Your task to perform on an android device: turn off location Image 0: 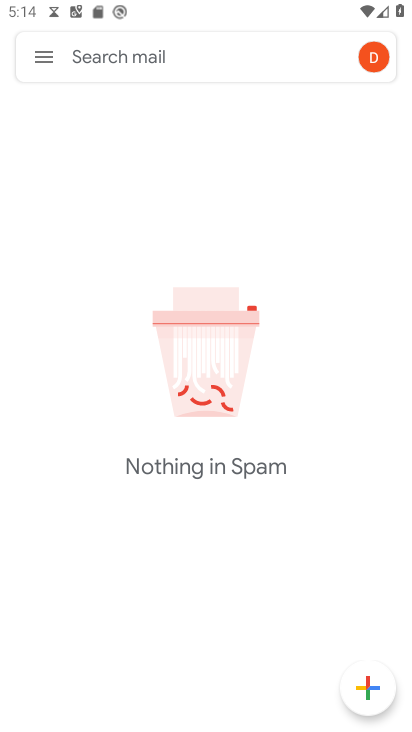
Step 0: press home button
Your task to perform on an android device: turn off location Image 1: 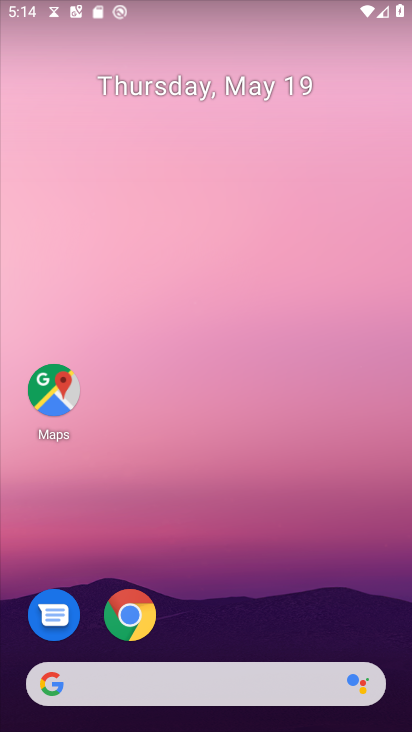
Step 1: drag from (291, 727) to (266, 9)
Your task to perform on an android device: turn off location Image 2: 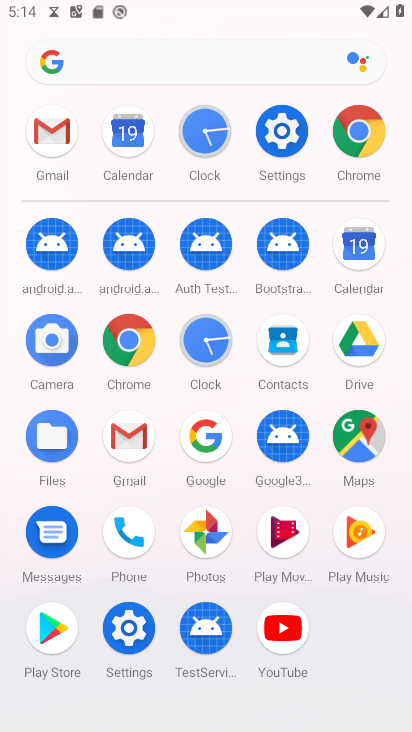
Step 2: click (276, 128)
Your task to perform on an android device: turn off location Image 3: 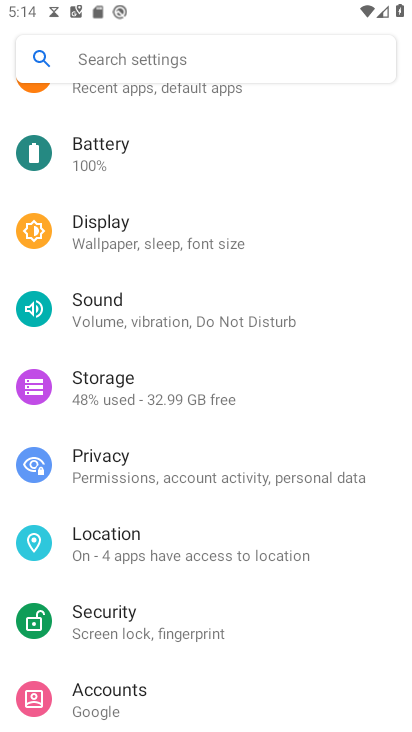
Step 3: click (104, 529)
Your task to perform on an android device: turn off location Image 4: 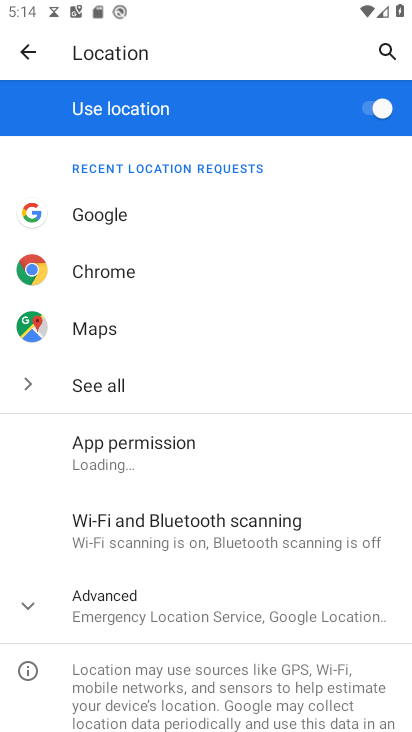
Step 4: click (370, 111)
Your task to perform on an android device: turn off location Image 5: 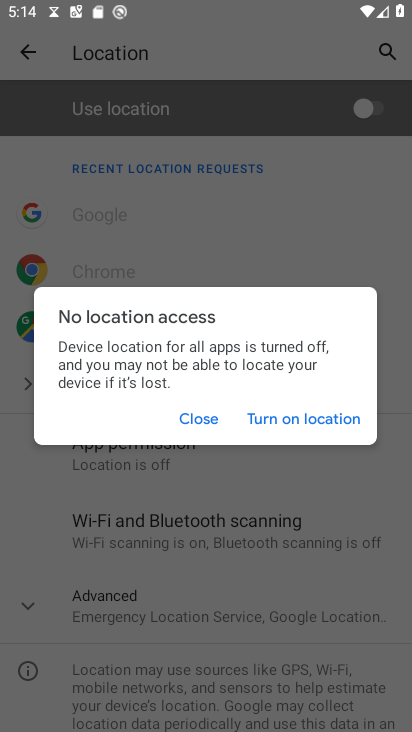
Step 5: click (203, 418)
Your task to perform on an android device: turn off location Image 6: 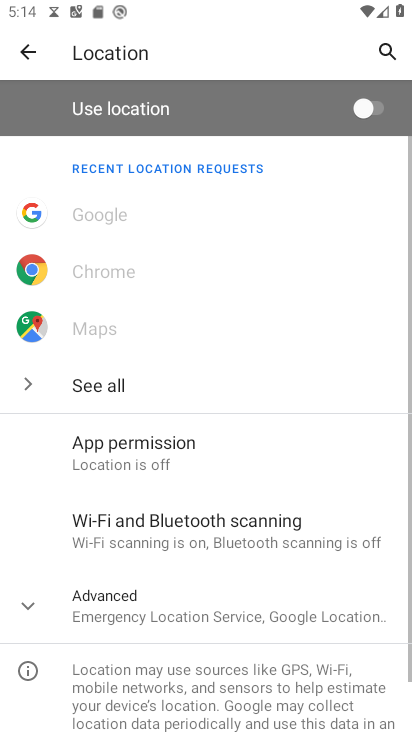
Step 6: task complete